Your task to perform on an android device: create a new album in the google photos Image 0: 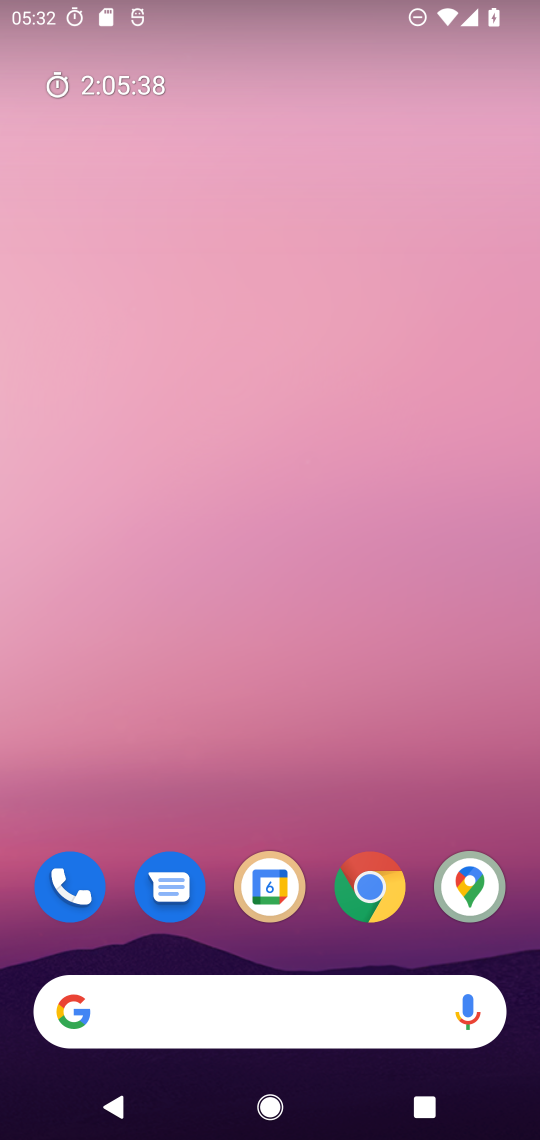
Step 0: press home button
Your task to perform on an android device: create a new album in the google photos Image 1: 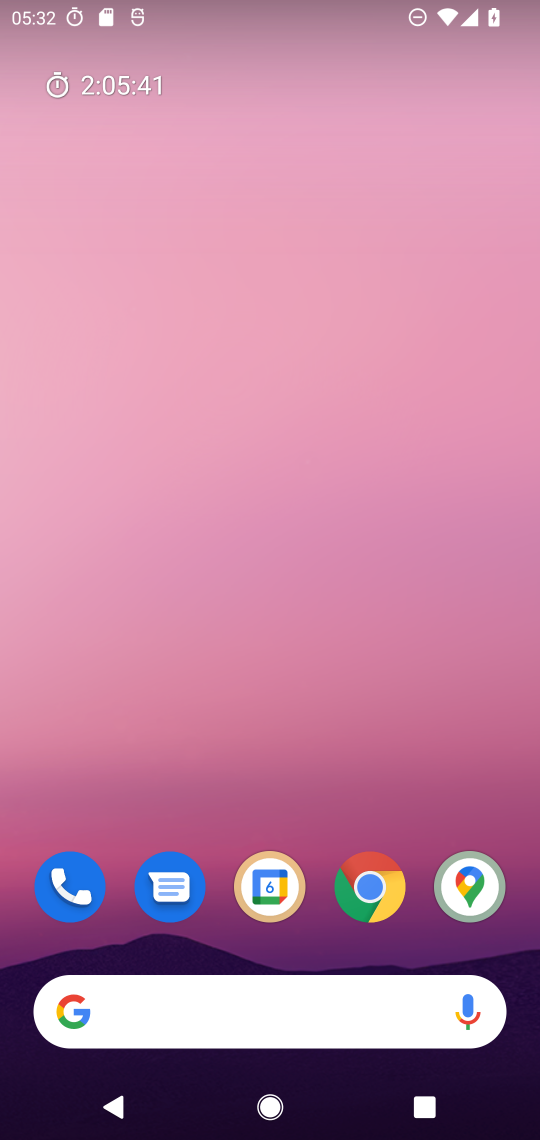
Step 1: drag from (397, 828) to (409, 289)
Your task to perform on an android device: create a new album in the google photos Image 2: 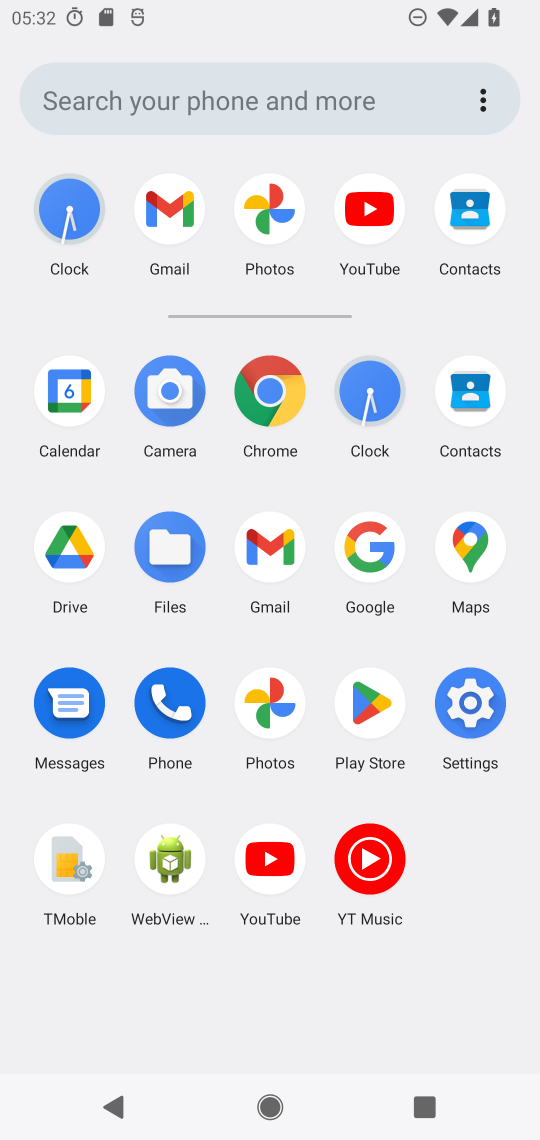
Step 2: click (260, 708)
Your task to perform on an android device: create a new album in the google photos Image 3: 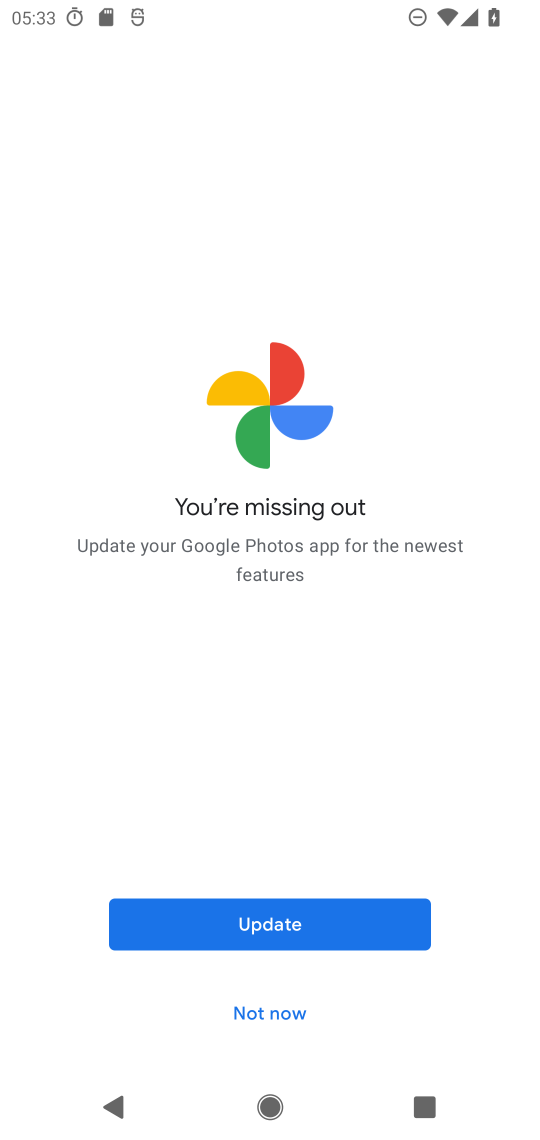
Step 3: click (289, 1010)
Your task to perform on an android device: create a new album in the google photos Image 4: 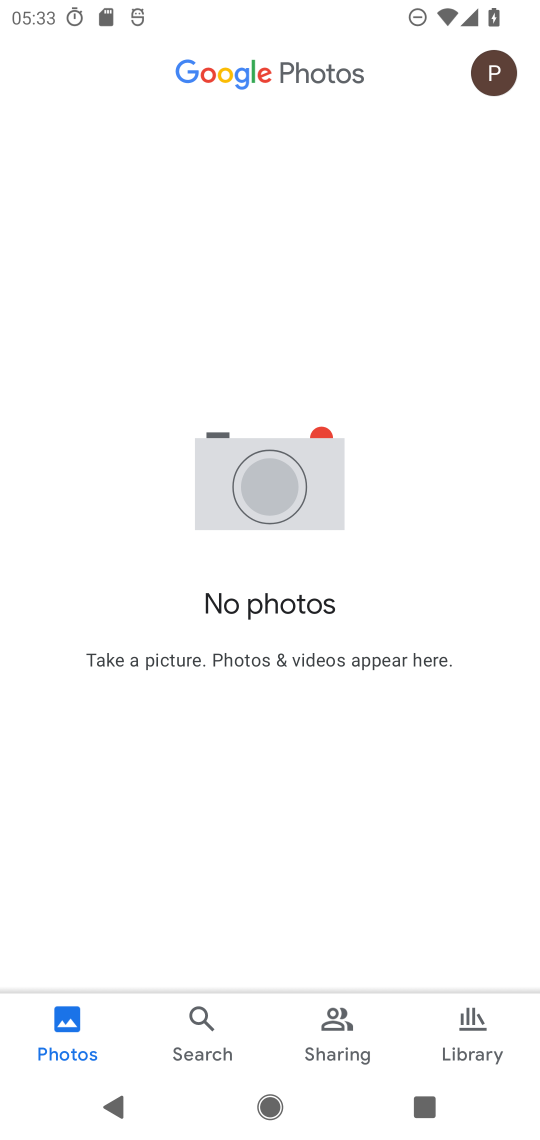
Step 4: click (470, 1025)
Your task to perform on an android device: create a new album in the google photos Image 5: 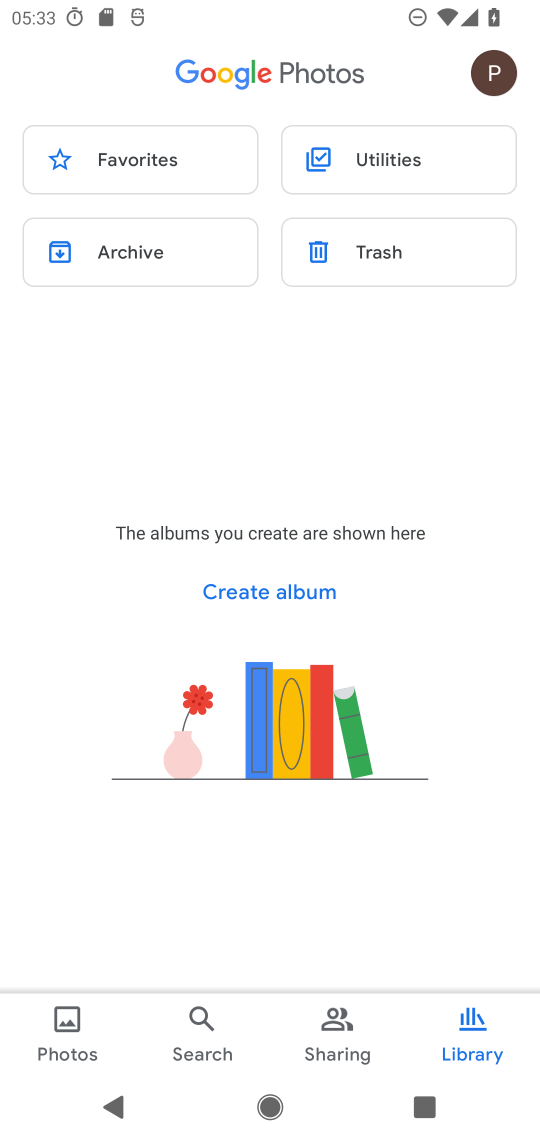
Step 5: click (288, 583)
Your task to perform on an android device: create a new album in the google photos Image 6: 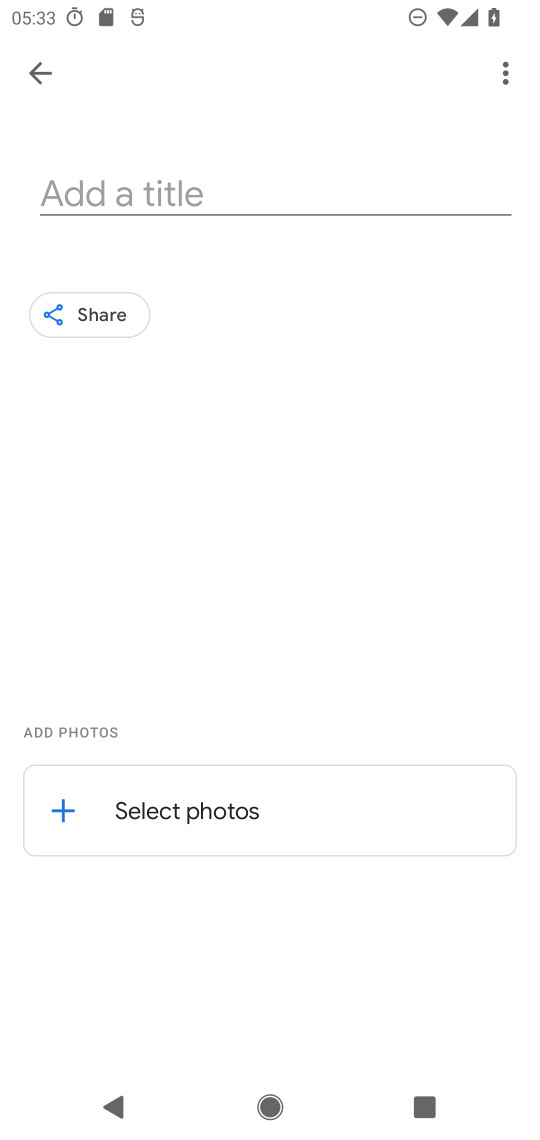
Step 6: click (338, 183)
Your task to perform on an android device: create a new album in the google photos Image 7: 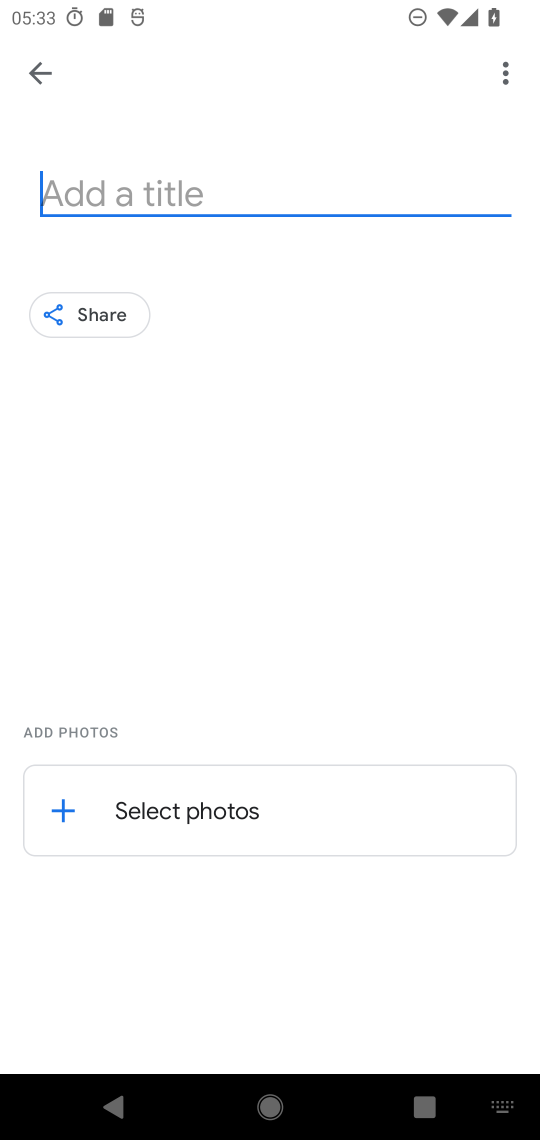
Step 7: type "lolol"
Your task to perform on an android device: create a new album in the google photos Image 8: 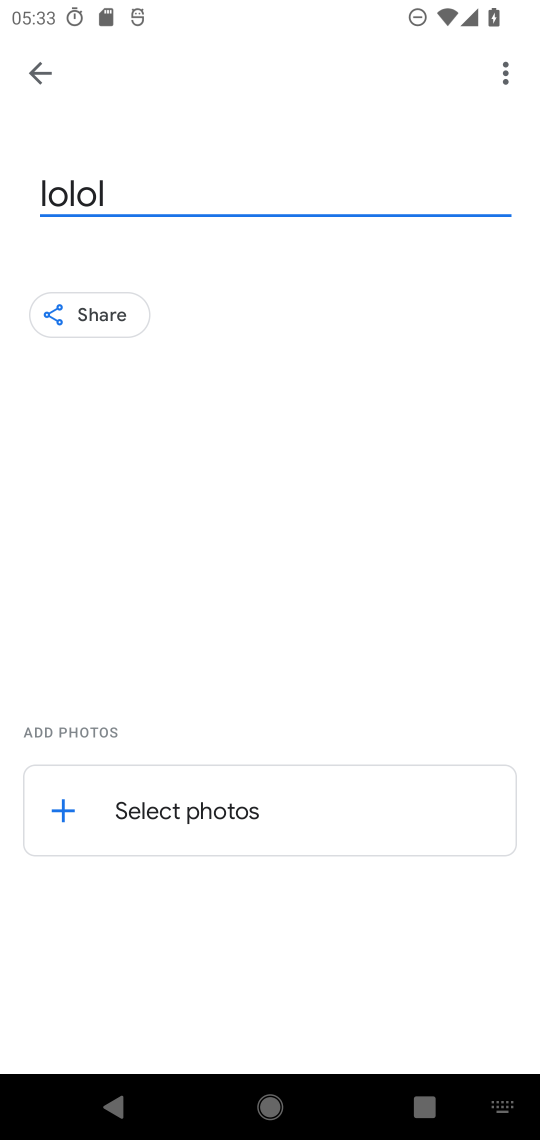
Step 8: click (267, 799)
Your task to perform on an android device: create a new album in the google photos Image 9: 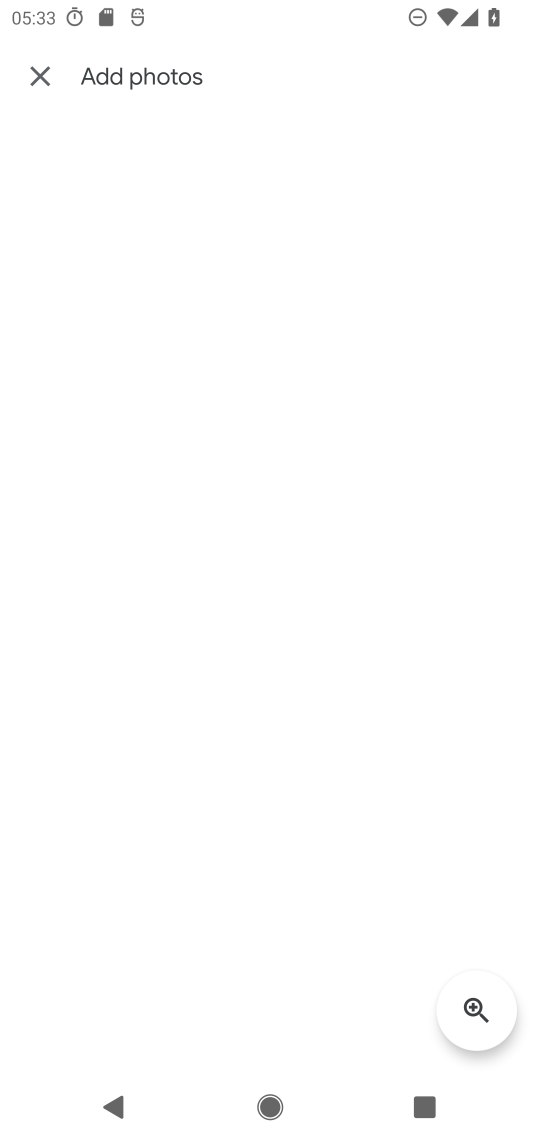
Step 9: task complete